Your task to perform on an android device: Go to Google Image 0: 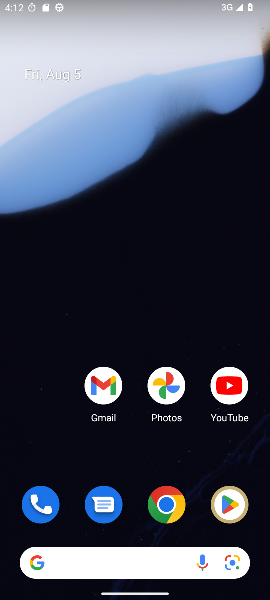
Step 0: click (71, 556)
Your task to perform on an android device: Go to Google Image 1: 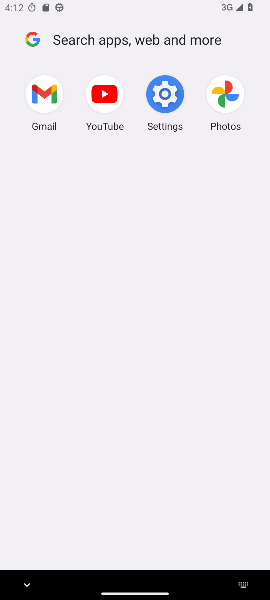
Step 1: task complete